Your task to perform on an android device: Open display settings Image 0: 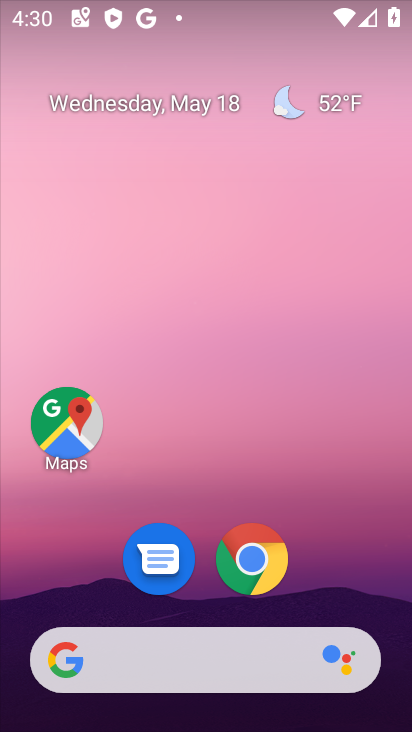
Step 0: drag from (206, 472) to (259, 122)
Your task to perform on an android device: Open display settings Image 1: 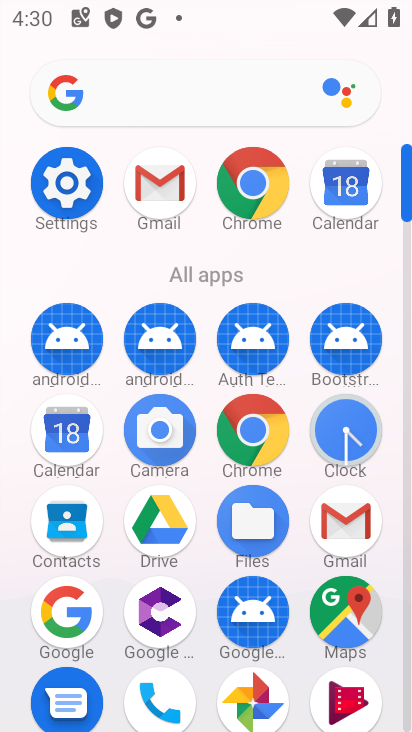
Step 1: click (84, 177)
Your task to perform on an android device: Open display settings Image 2: 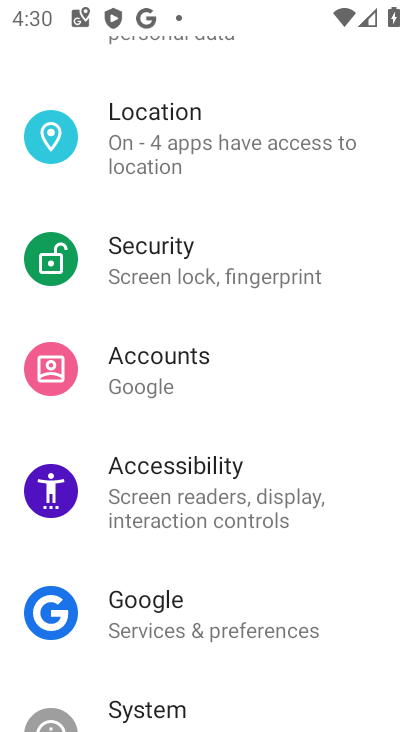
Step 2: drag from (261, 184) to (200, 641)
Your task to perform on an android device: Open display settings Image 3: 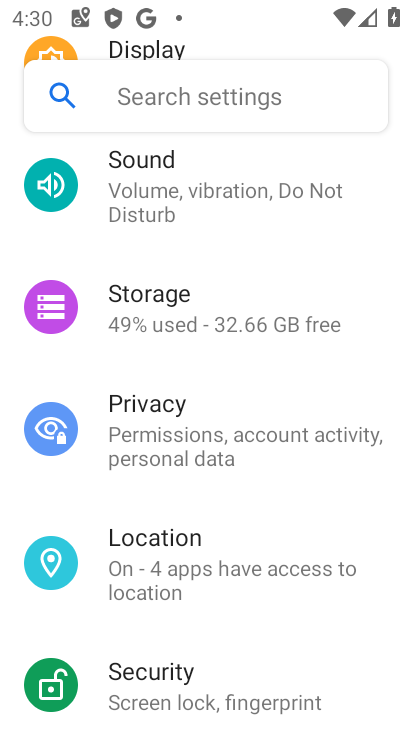
Step 3: drag from (210, 252) to (188, 685)
Your task to perform on an android device: Open display settings Image 4: 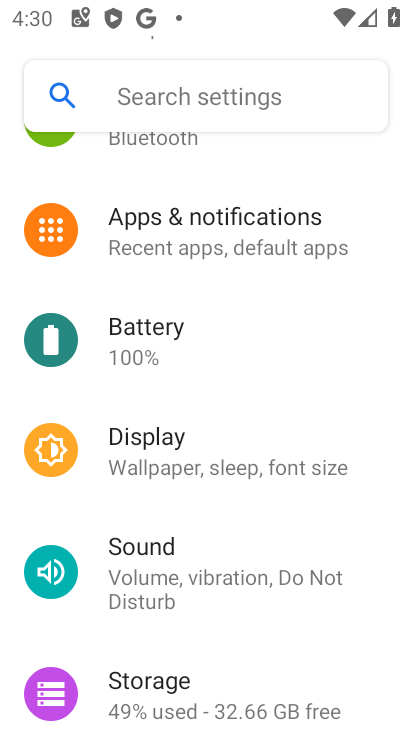
Step 4: click (178, 450)
Your task to perform on an android device: Open display settings Image 5: 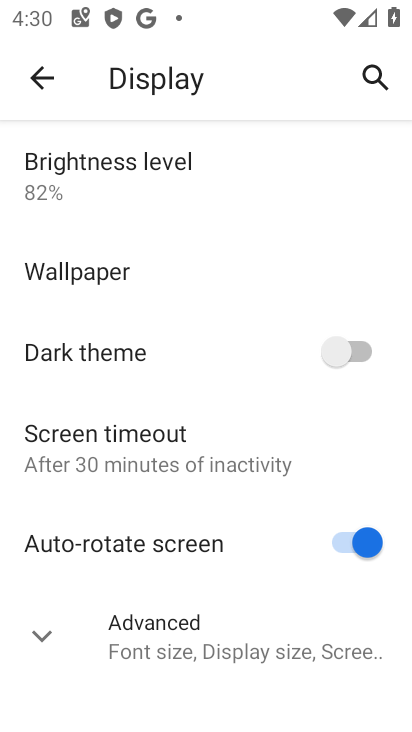
Step 5: task complete